Your task to perform on an android device: Open notification settings Image 0: 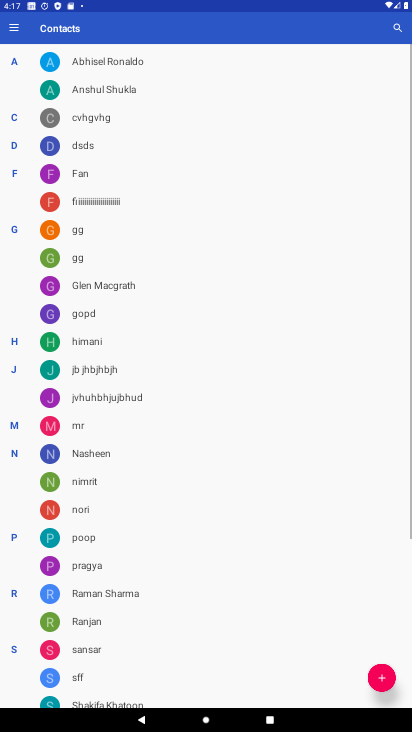
Step 0: press home button
Your task to perform on an android device: Open notification settings Image 1: 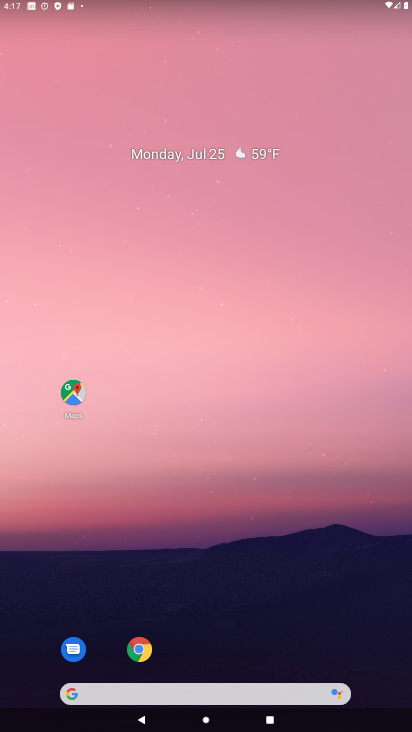
Step 1: drag from (258, 644) to (198, 203)
Your task to perform on an android device: Open notification settings Image 2: 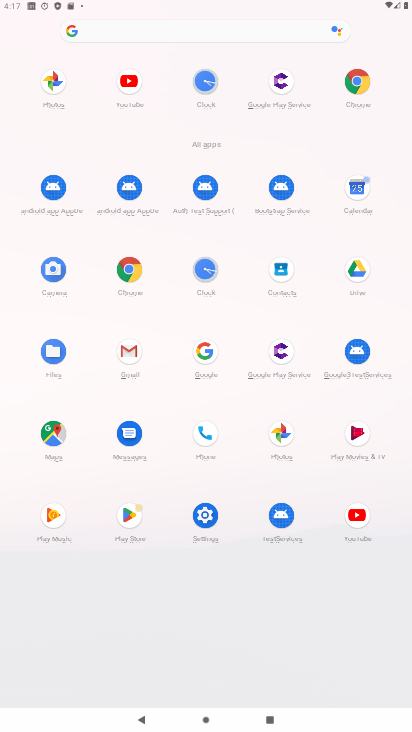
Step 2: click (206, 515)
Your task to perform on an android device: Open notification settings Image 3: 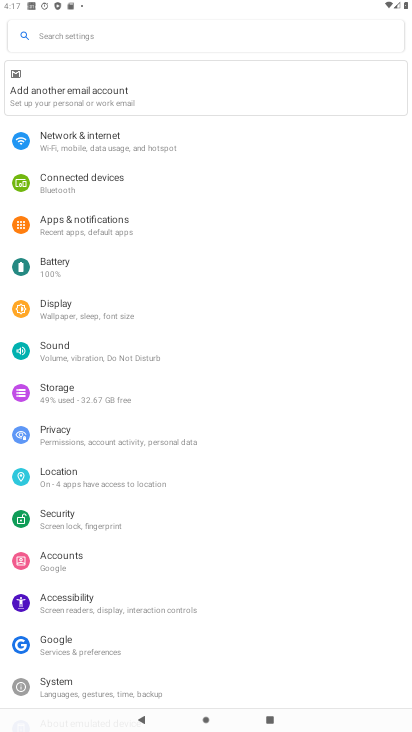
Step 3: click (180, 221)
Your task to perform on an android device: Open notification settings Image 4: 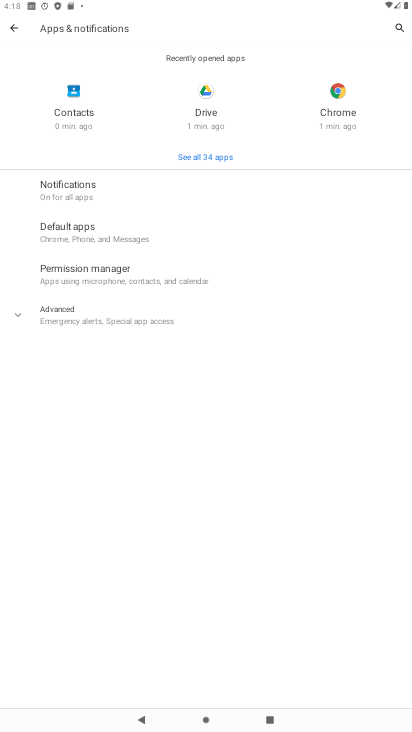
Step 4: click (164, 199)
Your task to perform on an android device: Open notification settings Image 5: 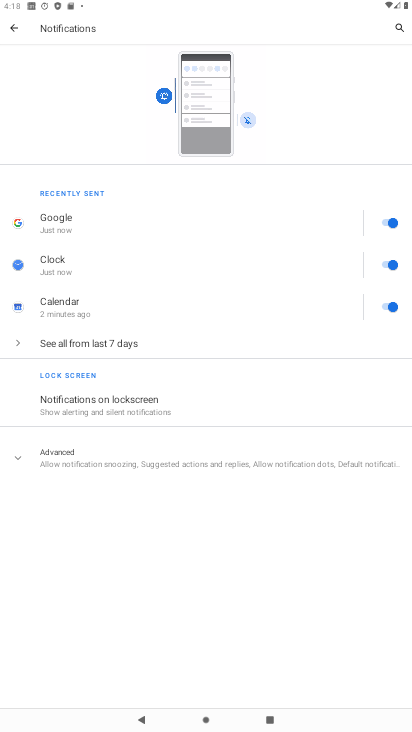
Step 5: task complete